Your task to perform on an android device: delete location history Image 0: 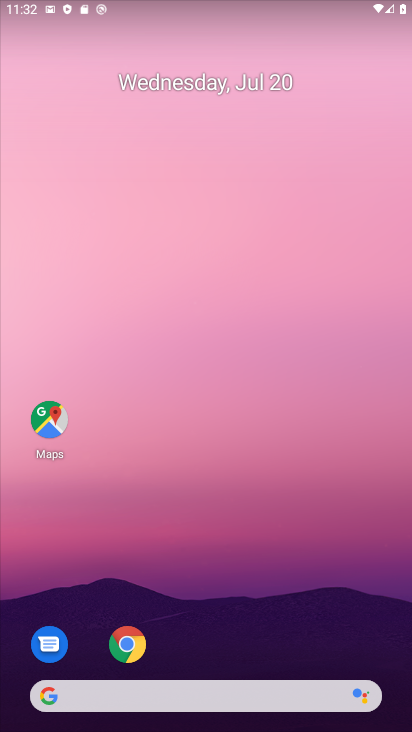
Step 0: click (52, 420)
Your task to perform on an android device: delete location history Image 1: 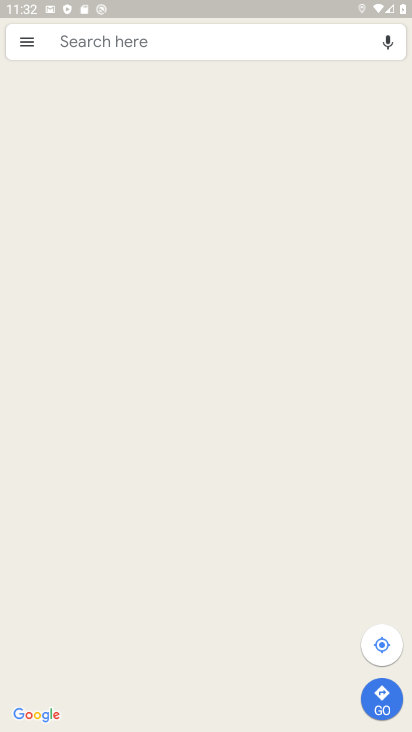
Step 1: click (23, 41)
Your task to perform on an android device: delete location history Image 2: 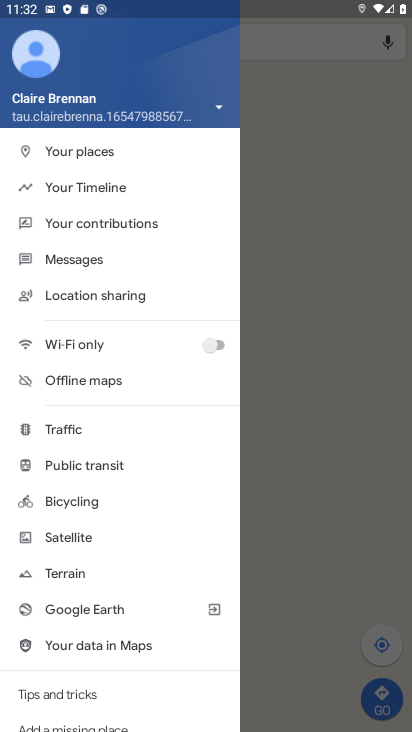
Step 2: drag from (177, 659) to (186, 266)
Your task to perform on an android device: delete location history Image 3: 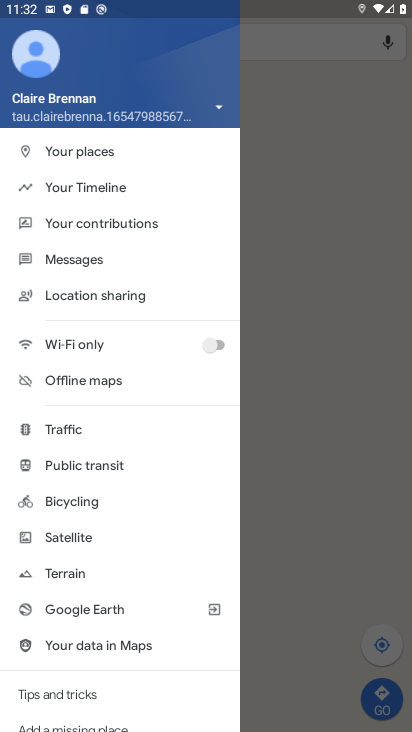
Step 3: drag from (167, 691) to (175, 203)
Your task to perform on an android device: delete location history Image 4: 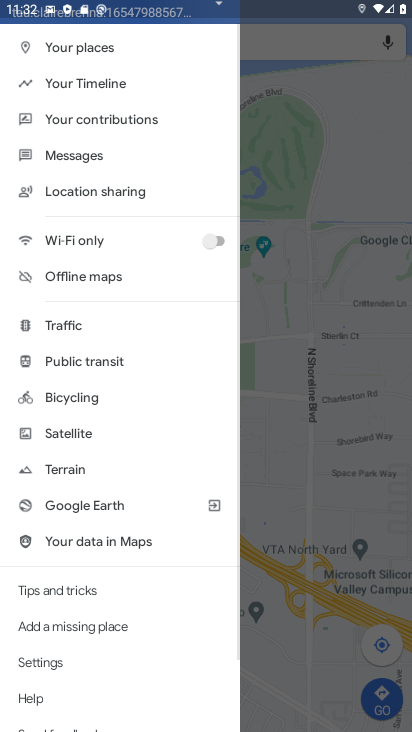
Step 4: drag from (149, 270) to (155, 380)
Your task to perform on an android device: delete location history Image 5: 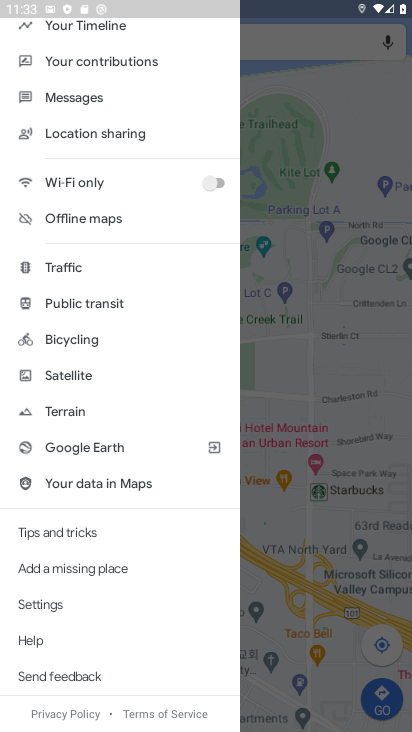
Step 5: click (38, 605)
Your task to perform on an android device: delete location history Image 6: 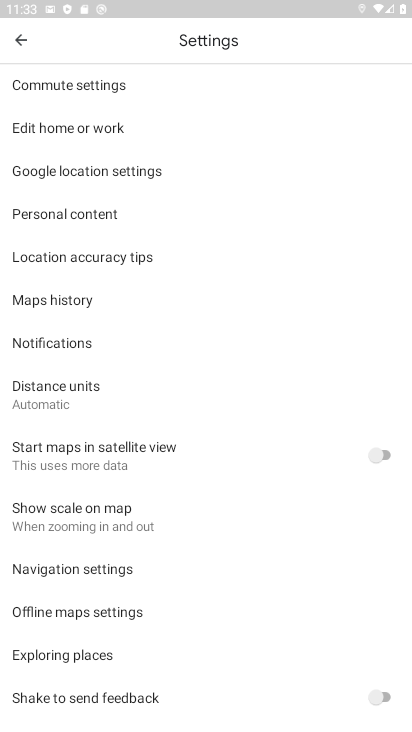
Step 6: click (73, 208)
Your task to perform on an android device: delete location history Image 7: 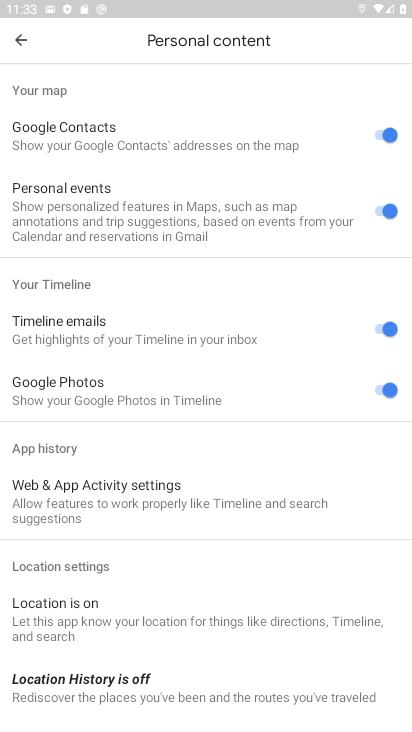
Step 7: drag from (222, 648) to (225, 220)
Your task to perform on an android device: delete location history Image 8: 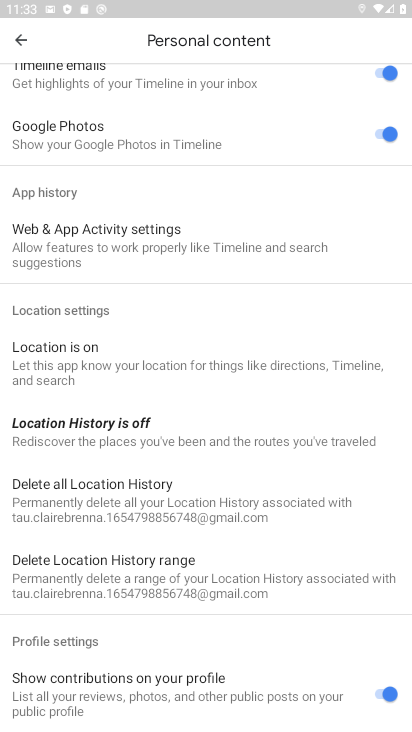
Step 8: drag from (254, 486) to (257, 223)
Your task to perform on an android device: delete location history Image 9: 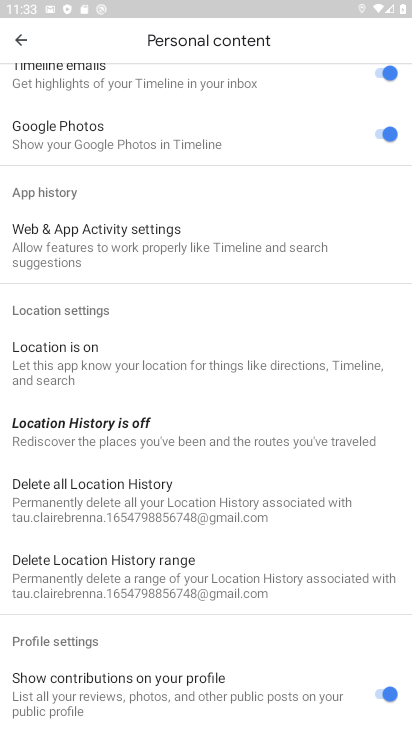
Step 9: click (75, 492)
Your task to perform on an android device: delete location history Image 10: 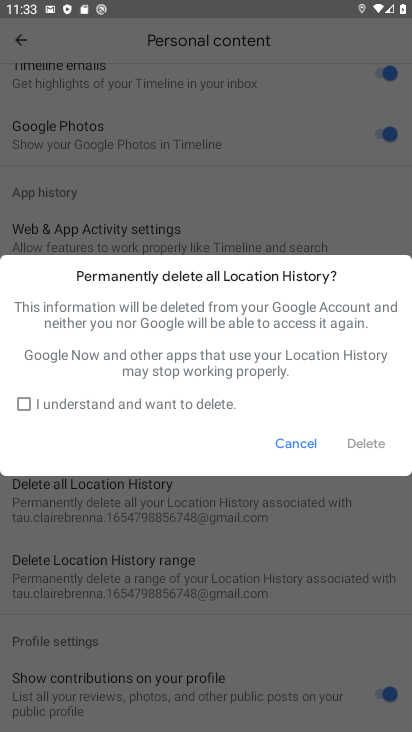
Step 10: click (23, 407)
Your task to perform on an android device: delete location history Image 11: 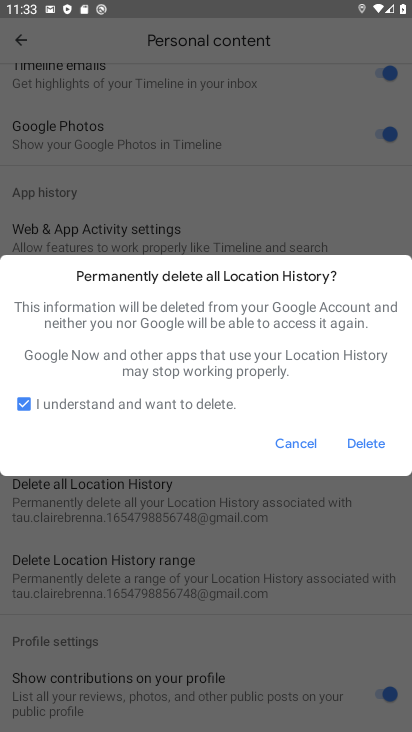
Step 11: click (370, 440)
Your task to perform on an android device: delete location history Image 12: 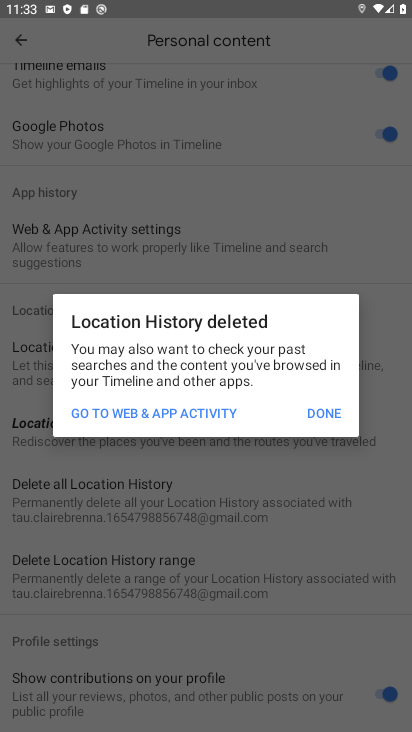
Step 12: click (320, 409)
Your task to perform on an android device: delete location history Image 13: 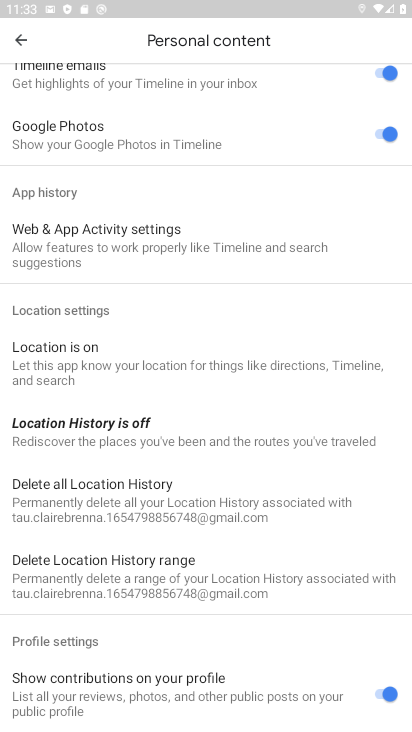
Step 13: task complete